Your task to perform on an android device: turn notification dots off Image 0: 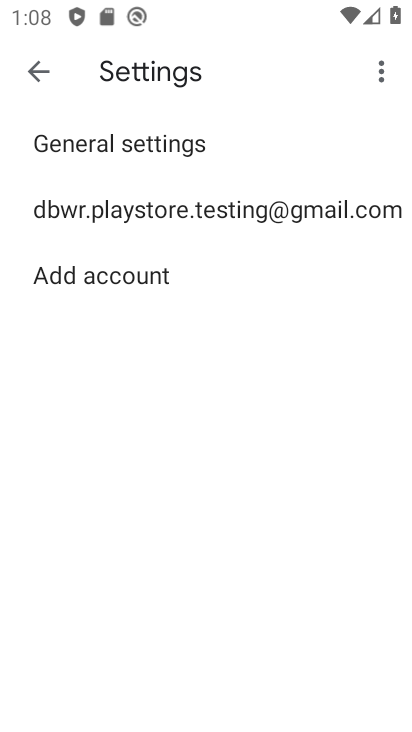
Step 0: press home button
Your task to perform on an android device: turn notification dots off Image 1: 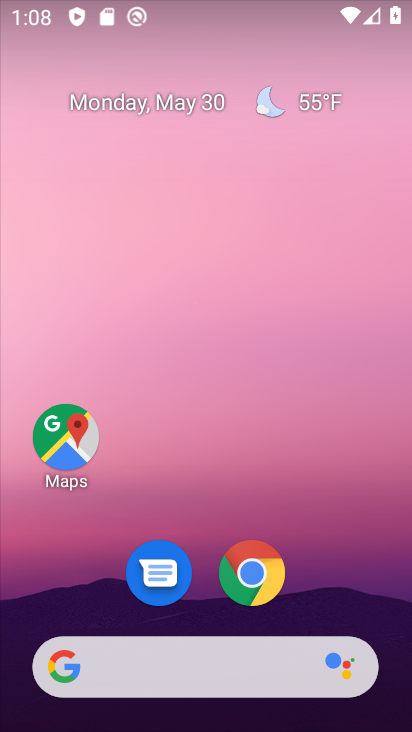
Step 1: drag from (306, 597) to (258, 194)
Your task to perform on an android device: turn notification dots off Image 2: 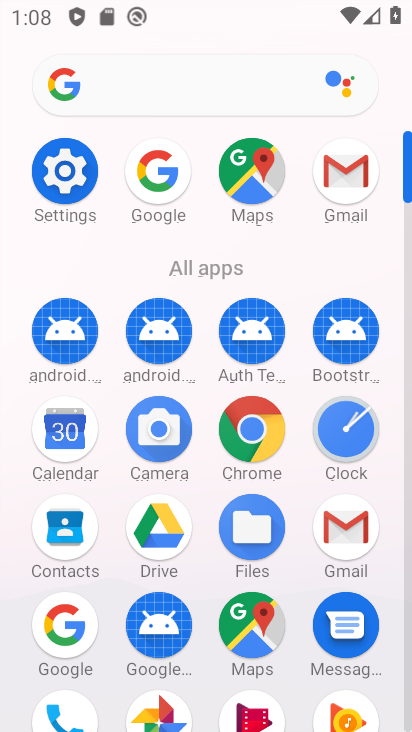
Step 2: click (65, 172)
Your task to perform on an android device: turn notification dots off Image 3: 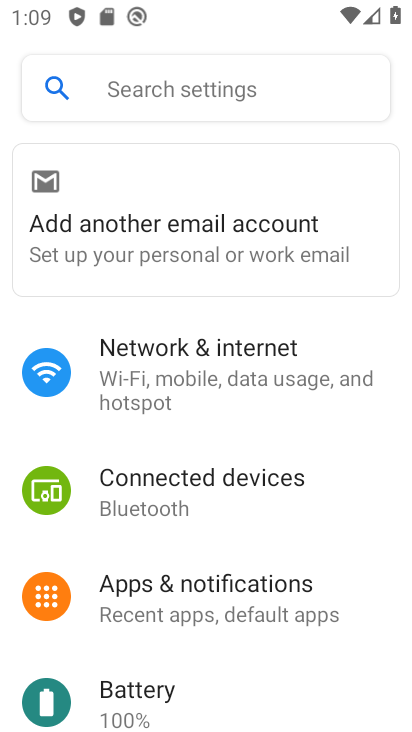
Step 3: drag from (172, 531) to (239, 446)
Your task to perform on an android device: turn notification dots off Image 4: 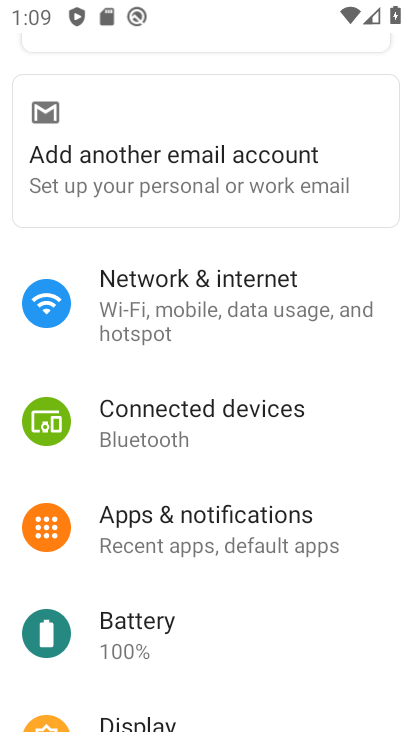
Step 4: click (203, 511)
Your task to perform on an android device: turn notification dots off Image 5: 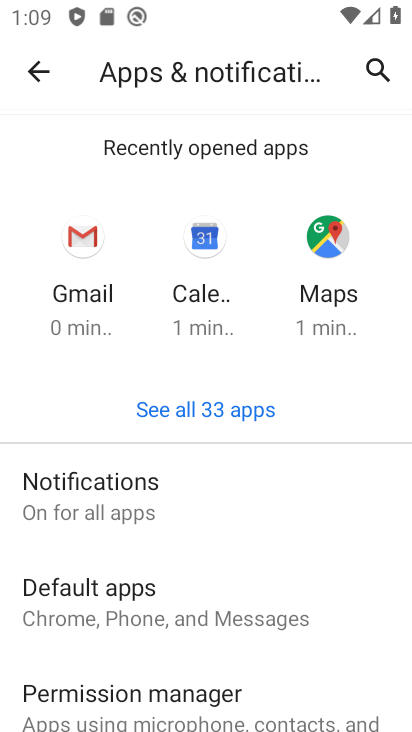
Step 5: click (118, 486)
Your task to perform on an android device: turn notification dots off Image 6: 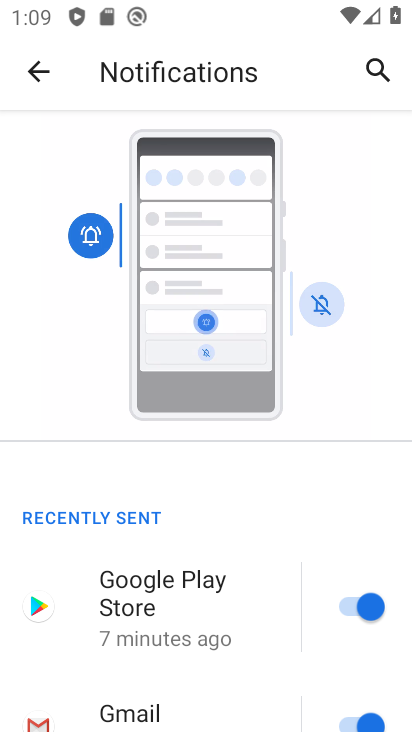
Step 6: drag from (177, 530) to (247, 369)
Your task to perform on an android device: turn notification dots off Image 7: 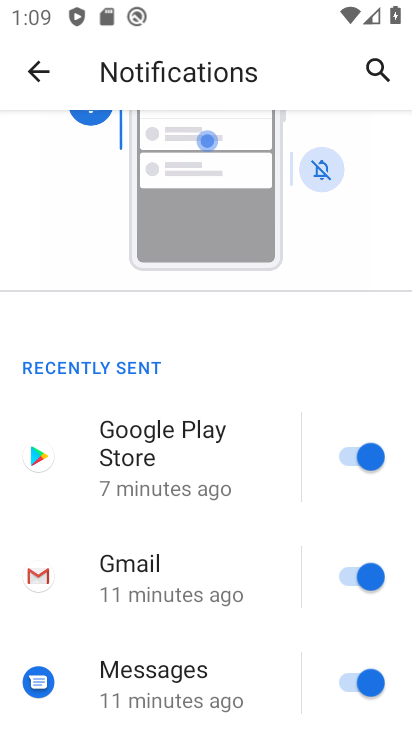
Step 7: drag from (172, 541) to (253, 393)
Your task to perform on an android device: turn notification dots off Image 8: 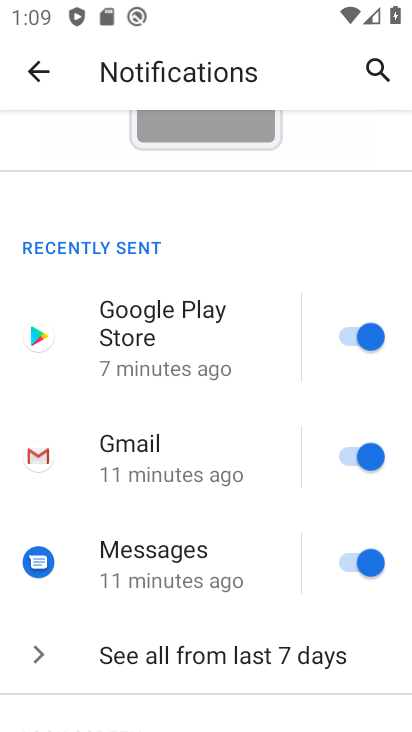
Step 8: drag from (177, 518) to (251, 429)
Your task to perform on an android device: turn notification dots off Image 9: 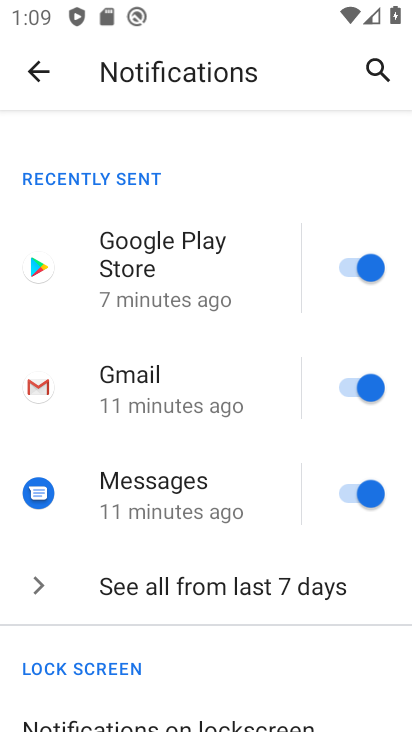
Step 9: drag from (199, 653) to (249, 551)
Your task to perform on an android device: turn notification dots off Image 10: 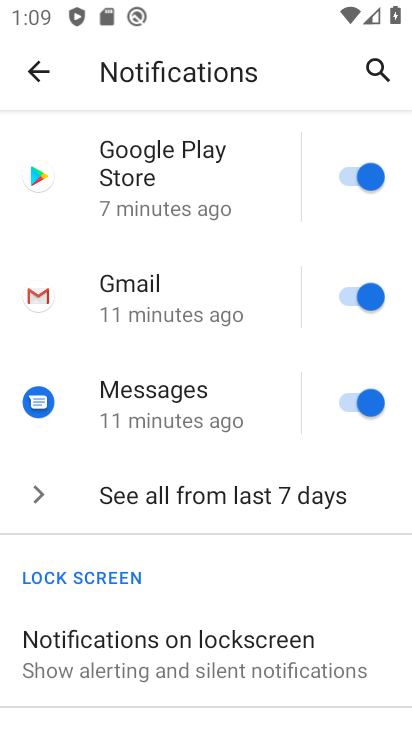
Step 10: drag from (185, 576) to (237, 436)
Your task to perform on an android device: turn notification dots off Image 11: 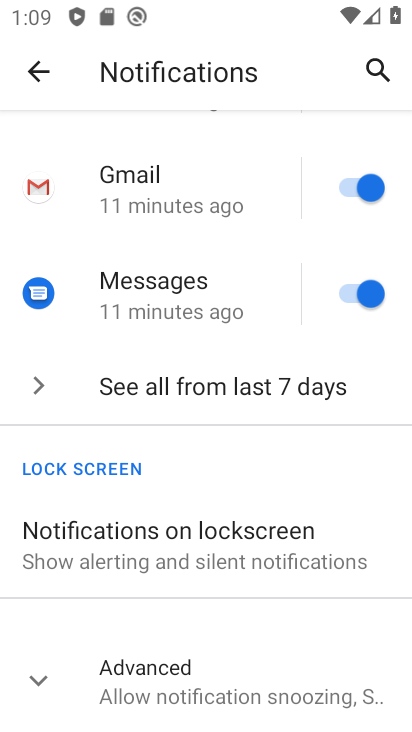
Step 11: click (201, 697)
Your task to perform on an android device: turn notification dots off Image 12: 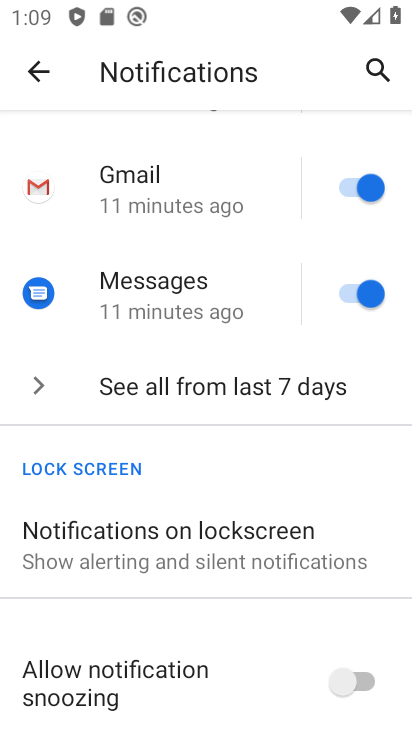
Step 12: drag from (201, 631) to (294, 447)
Your task to perform on an android device: turn notification dots off Image 13: 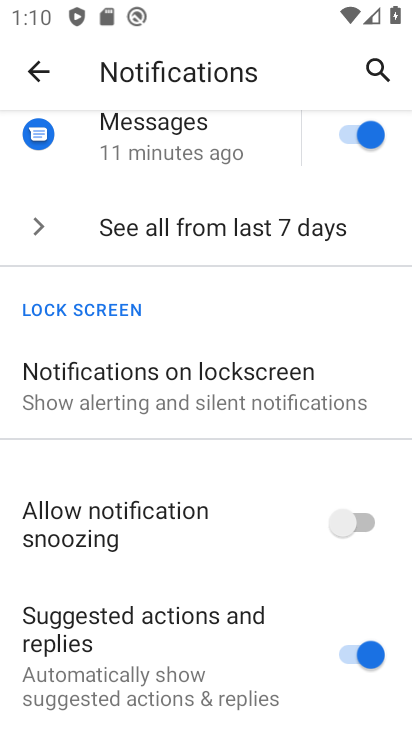
Step 13: drag from (157, 590) to (242, 475)
Your task to perform on an android device: turn notification dots off Image 14: 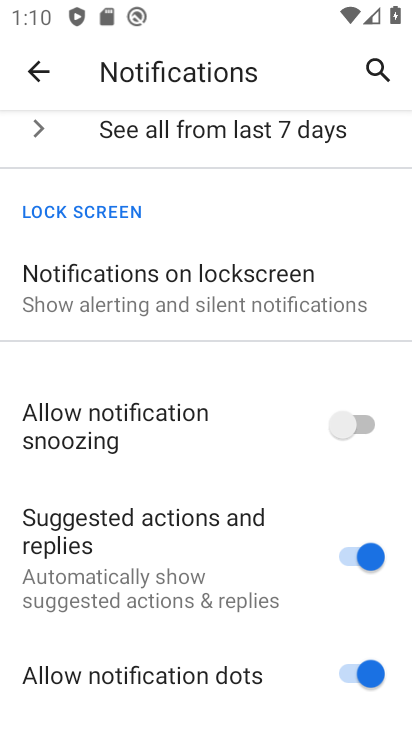
Step 14: drag from (137, 637) to (176, 511)
Your task to perform on an android device: turn notification dots off Image 15: 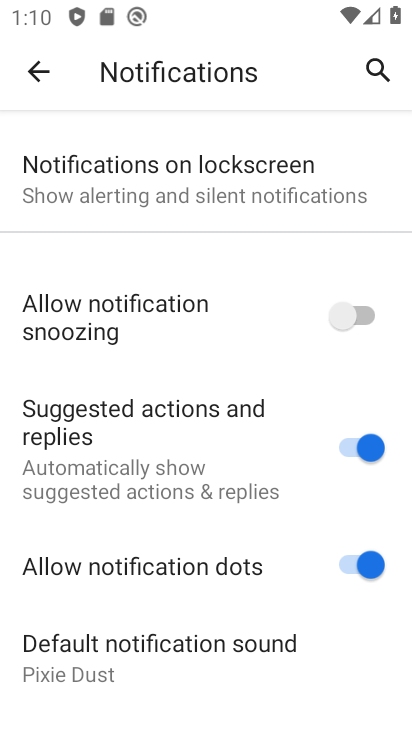
Step 15: click (352, 553)
Your task to perform on an android device: turn notification dots off Image 16: 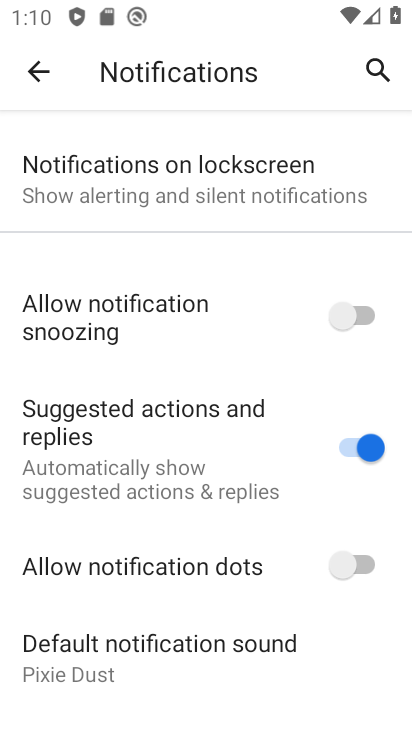
Step 16: task complete